Your task to perform on an android device: open a new tab in the chrome app Image 0: 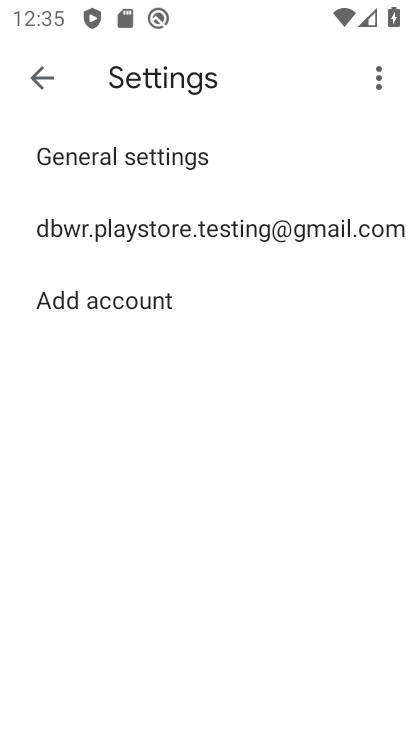
Step 0: press home button
Your task to perform on an android device: open a new tab in the chrome app Image 1: 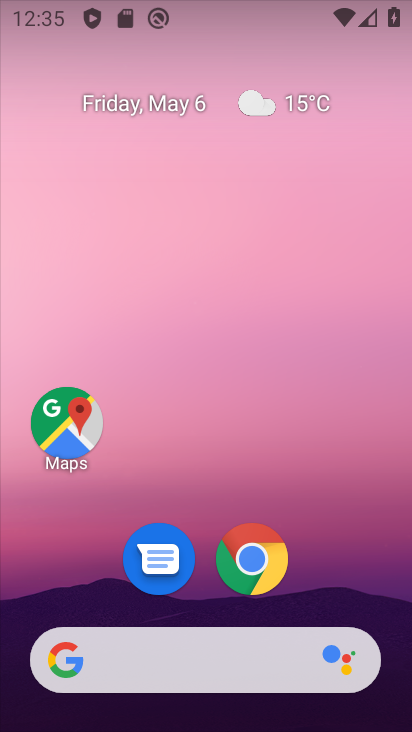
Step 1: click (264, 561)
Your task to perform on an android device: open a new tab in the chrome app Image 2: 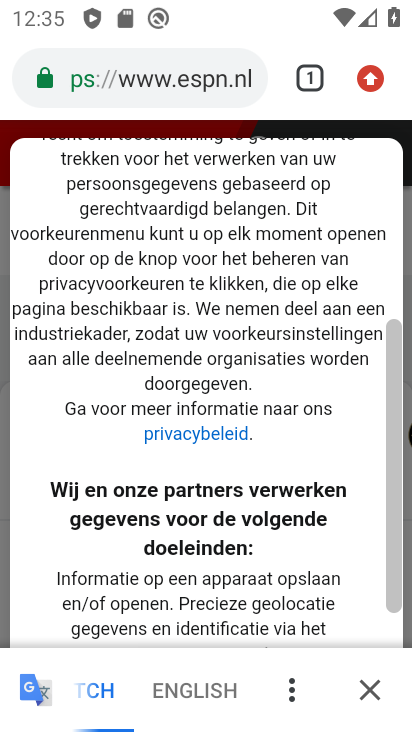
Step 2: drag from (203, 46) to (196, 182)
Your task to perform on an android device: open a new tab in the chrome app Image 3: 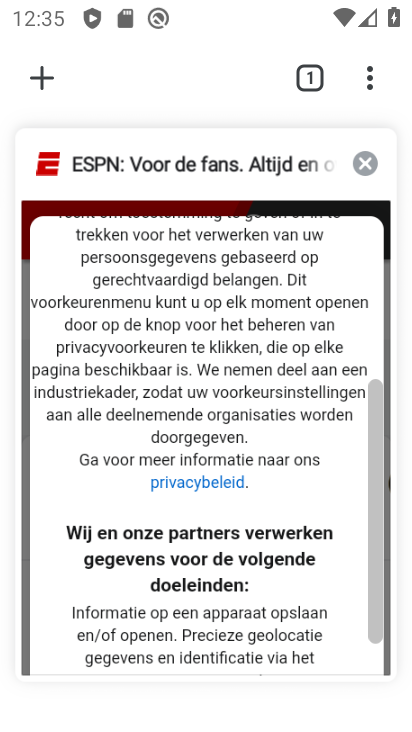
Step 3: click (48, 85)
Your task to perform on an android device: open a new tab in the chrome app Image 4: 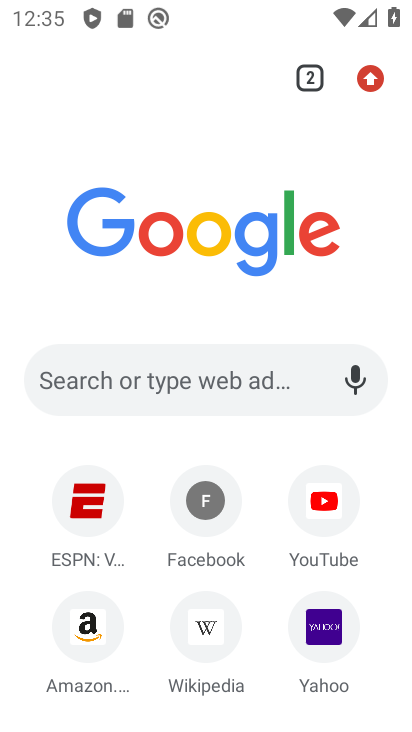
Step 4: task complete